Your task to perform on an android device: turn off wifi Image 0: 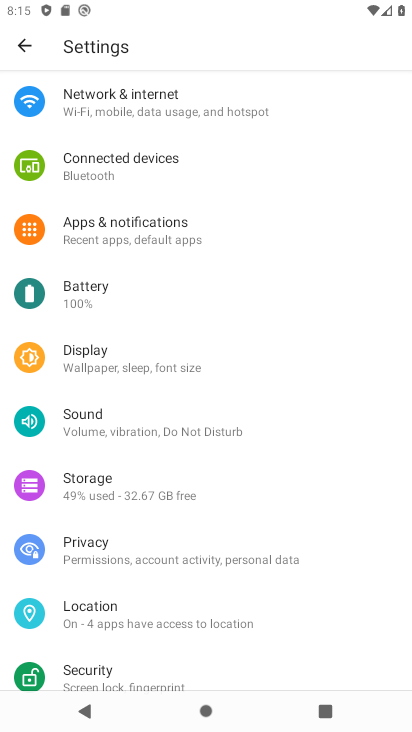
Step 0: click (194, 105)
Your task to perform on an android device: turn off wifi Image 1: 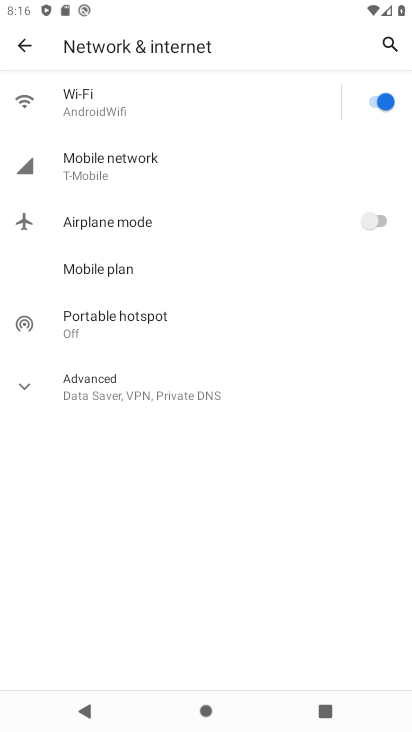
Step 1: click (379, 109)
Your task to perform on an android device: turn off wifi Image 2: 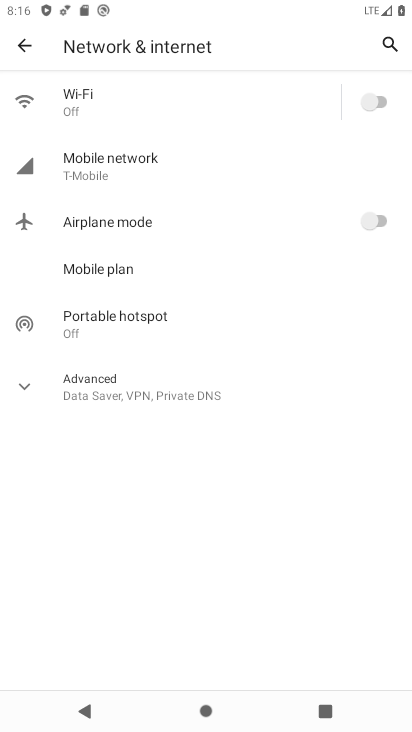
Step 2: task complete